Your task to perform on an android device: Do I have any events today? Image 0: 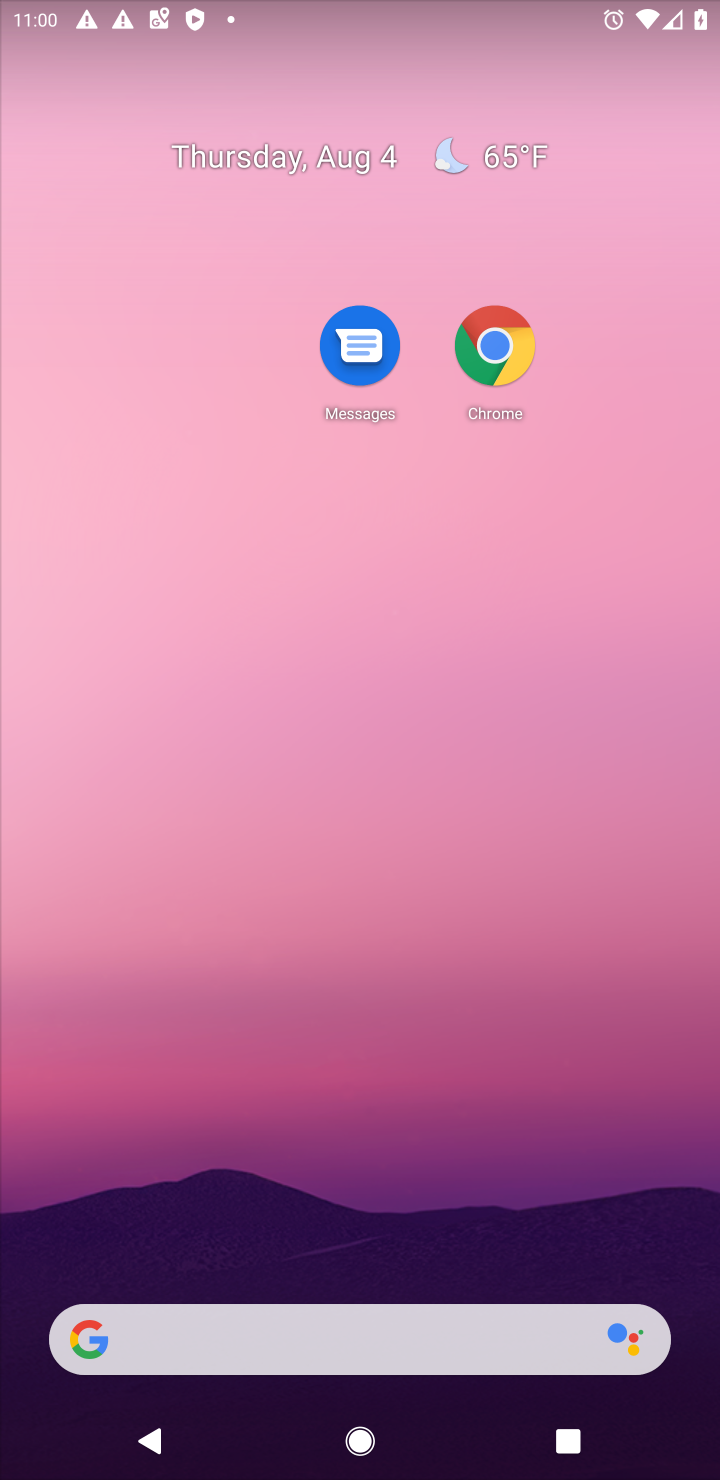
Step 0: drag from (345, 1337) to (700, 0)
Your task to perform on an android device: Do I have any events today? Image 1: 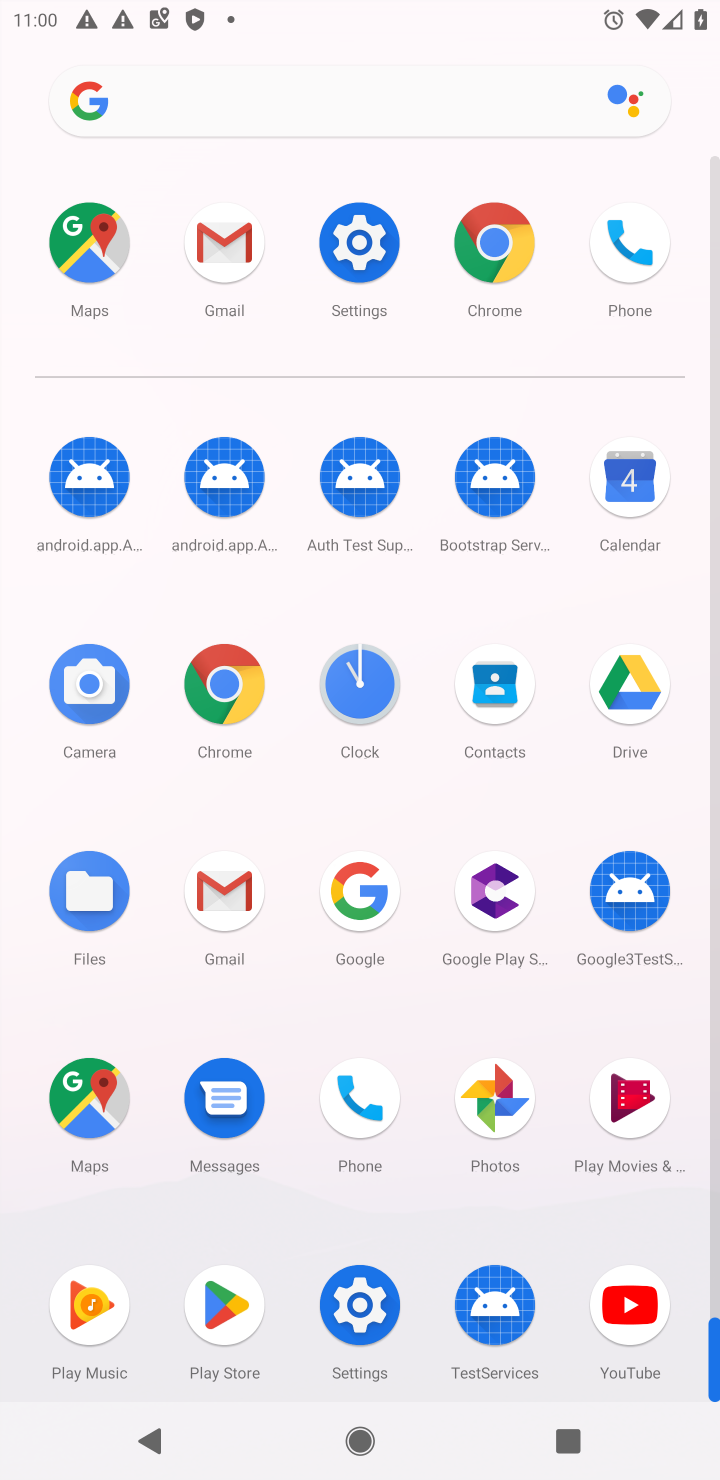
Step 1: click (616, 528)
Your task to perform on an android device: Do I have any events today? Image 2: 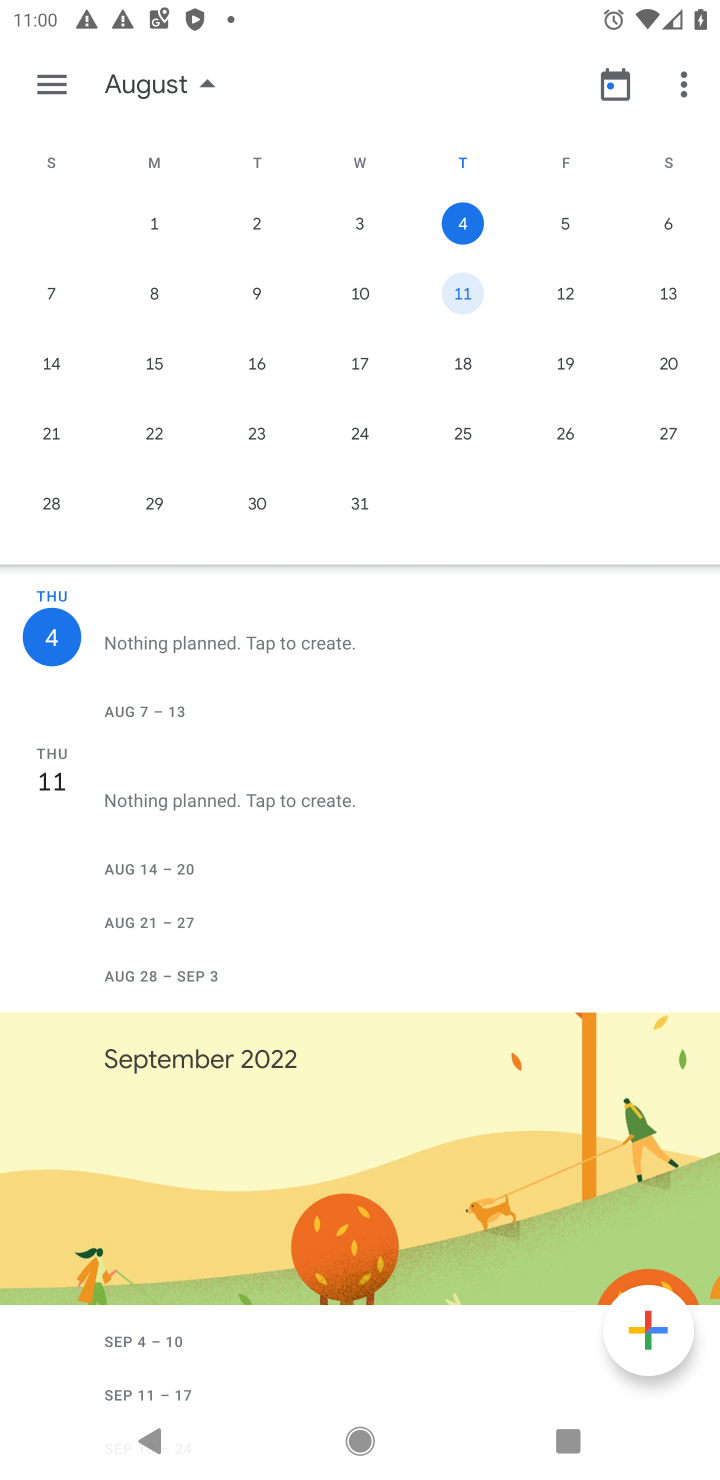
Step 2: task complete